Your task to perform on an android device: Set the phone to "Do not disturb". Image 0: 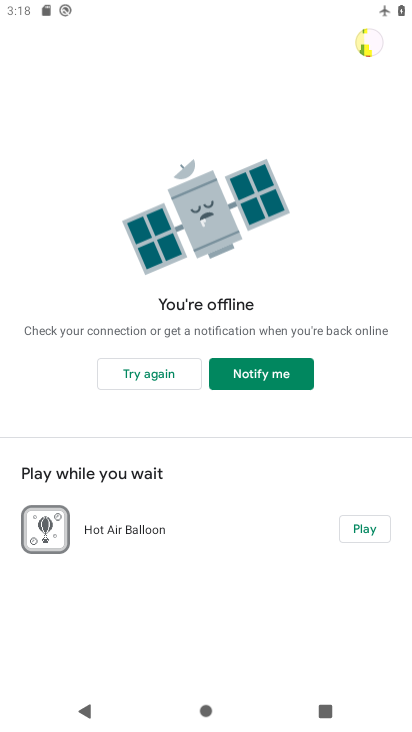
Step 0: press home button
Your task to perform on an android device: Set the phone to "Do not disturb". Image 1: 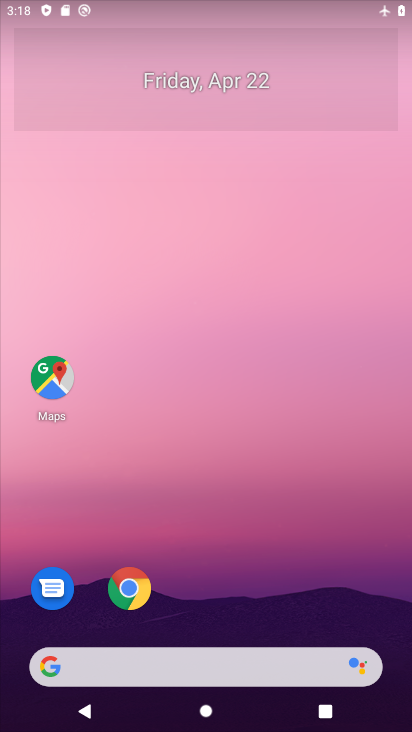
Step 1: drag from (207, 484) to (218, 235)
Your task to perform on an android device: Set the phone to "Do not disturb". Image 2: 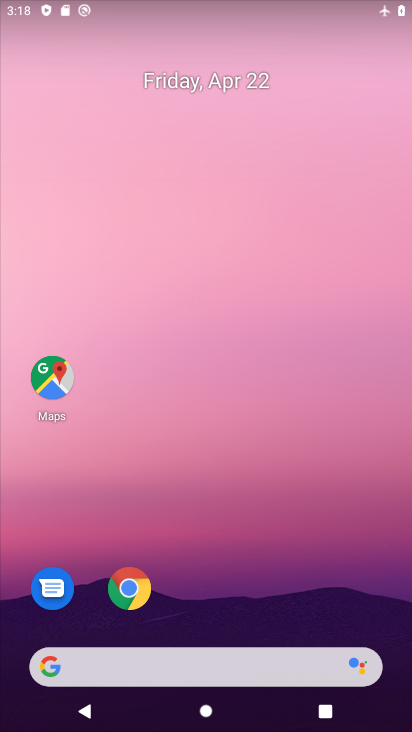
Step 2: drag from (207, 625) to (242, 150)
Your task to perform on an android device: Set the phone to "Do not disturb". Image 3: 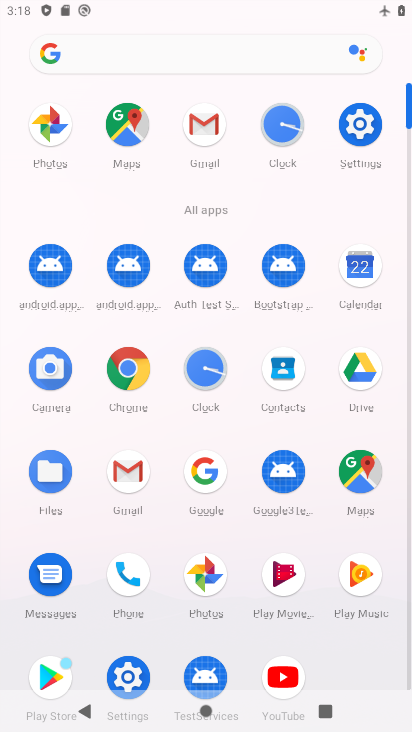
Step 3: click (373, 132)
Your task to perform on an android device: Set the phone to "Do not disturb". Image 4: 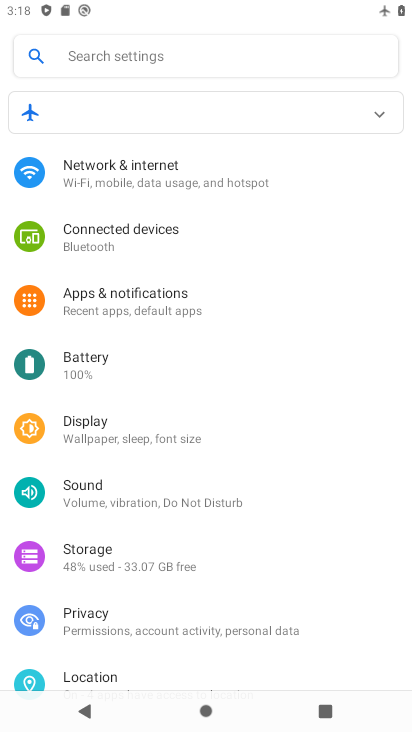
Step 4: click (115, 494)
Your task to perform on an android device: Set the phone to "Do not disturb". Image 5: 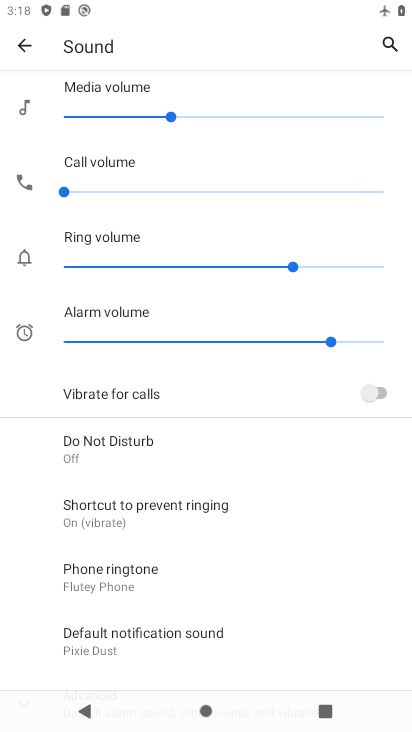
Step 5: click (145, 461)
Your task to perform on an android device: Set the phone to "Do not disturb". Image 6: 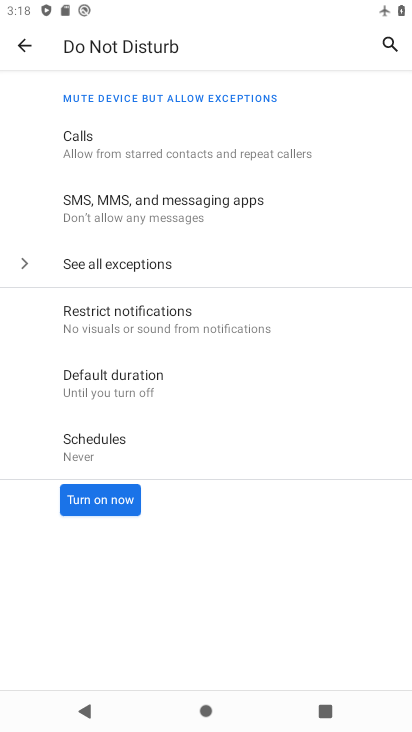
Step 6: click (116, 498)
Your task to perform on an android device: Set the phone to "Do not disturb". Image 7: 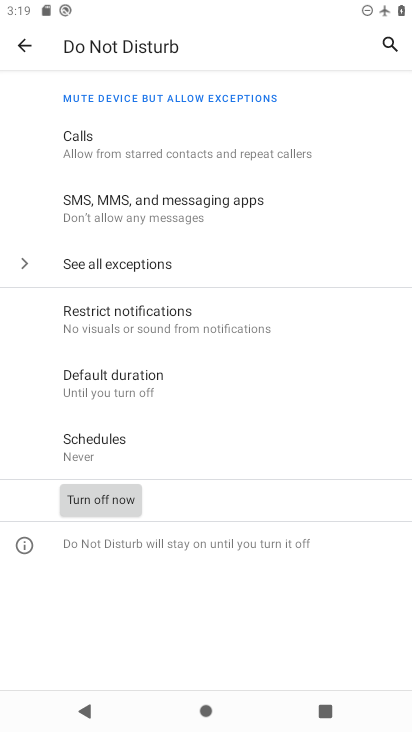
Step 7: task complete